Your task to perform on an android device: Go to calendar. Show me events next week Image 0: 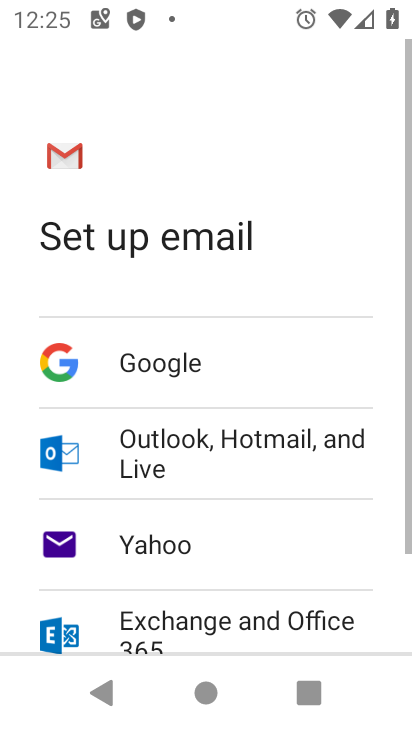
Step 0: press home button
Your task to perform on an android device: Go to calendar. Show me events next week Image 1: 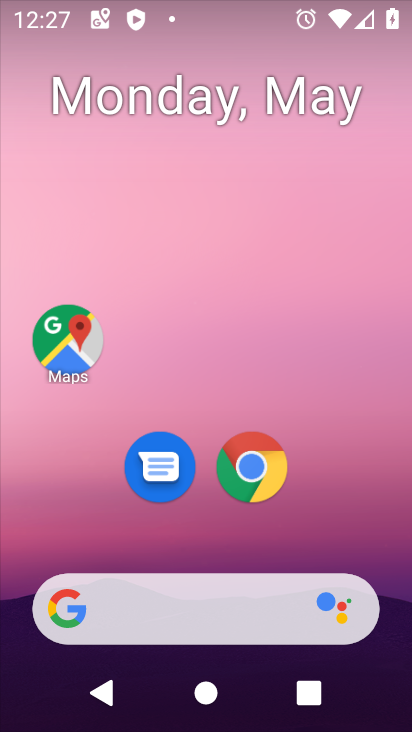
Step 1: drag from (380, 553) to (285, 68)
Your task to perform on an android device: Go to calendar. Show me events next week Image 2: 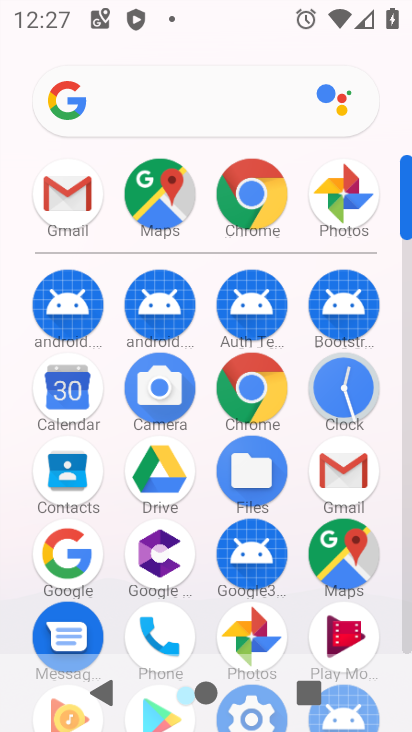
Step 2: click (46, 381)
Your task to perform on an android device: Go to calendar. Show me events next week Image 3: 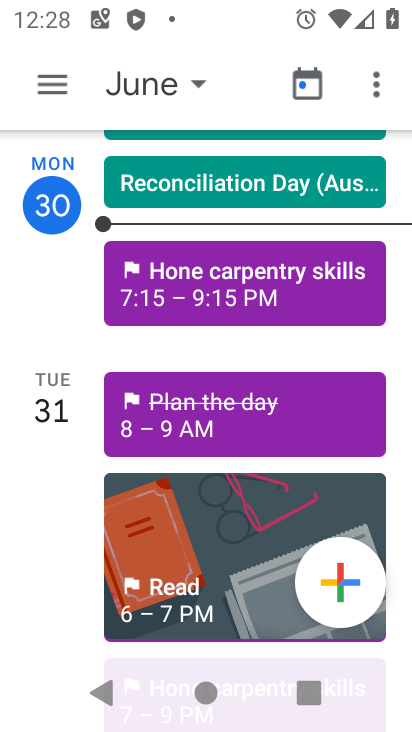
Step 3: task complete